Your task to perform on an android device: turn vacation reply on in the gmail app Image 0: 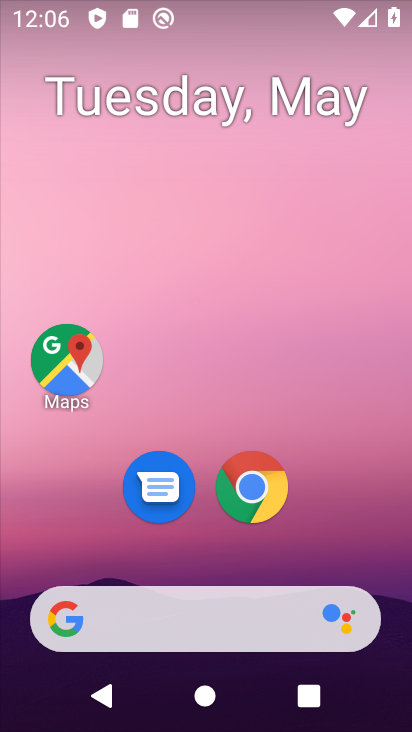
Step 0: drag from (340, 445) to (211, 37)
Your task to perform on an android device: turn vacation reply on in the gmail app Image 1: 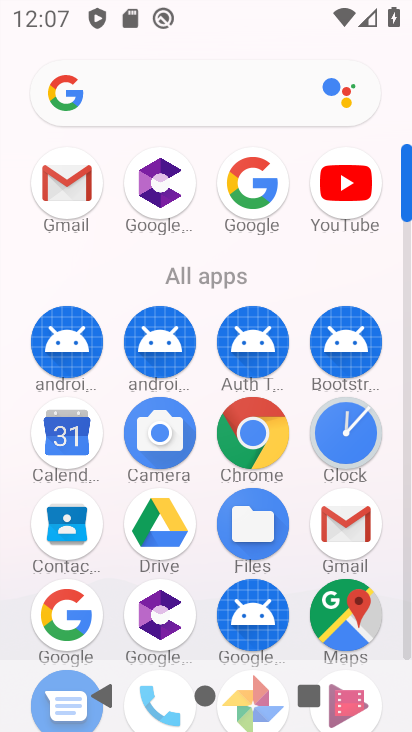
Step 1: click (349, 524)
Your task to perform on an android device: turn vacation reply on in the gmail app Image 2: 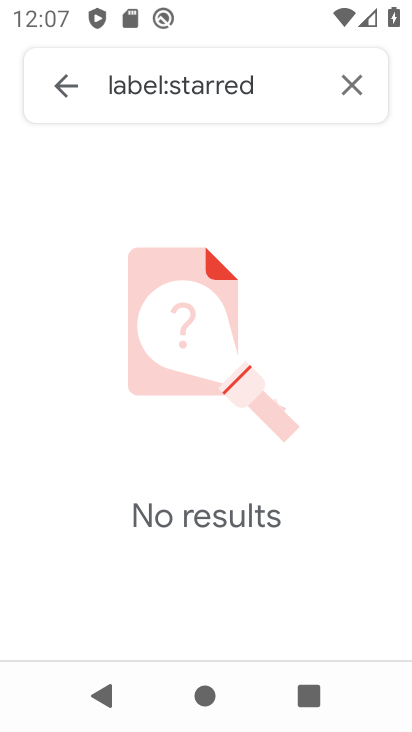
Step 2: click (350, 90)
Your task to perform on an android device: turn vacation reply on in the gmail app Image 3: 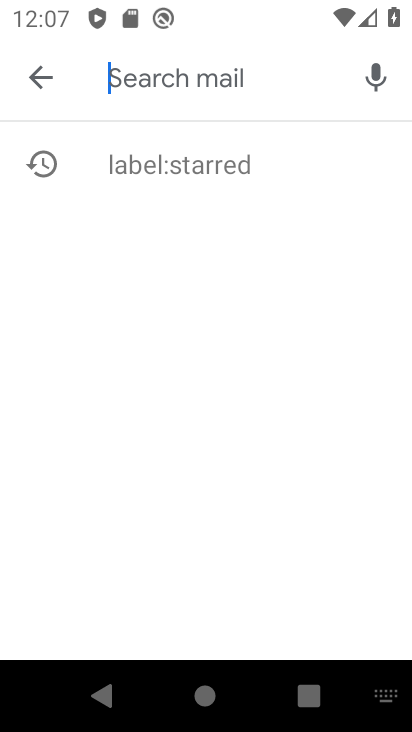
Step 3: click (40, 76)
Your task to perform on an android device: turn vacation reply on in the gmail app Image 4: 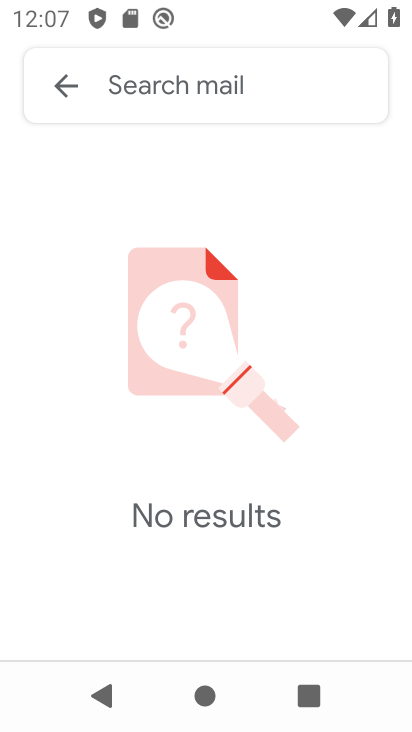
Step 4: click (69, 86)
Your task to perform on an android device: turn vacation reply on in the gmail app Image 5: 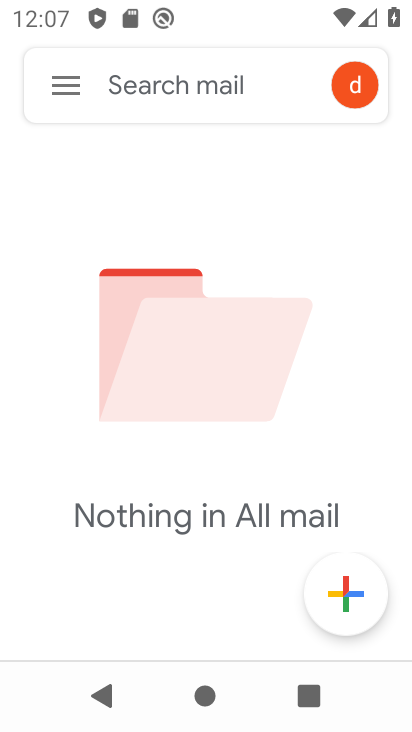
Step 5: click (72, 80)
Your task to perform on an android device: turn vacation reply on in the gmail app Image 6: 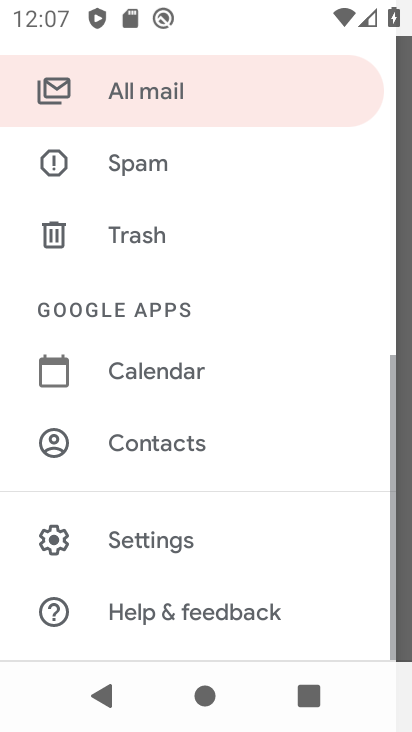
Step 6: drag from (217, 544) to (275, 191)
Your task to perform on an android device: turn vacation reply on in the gmail app Image 7: 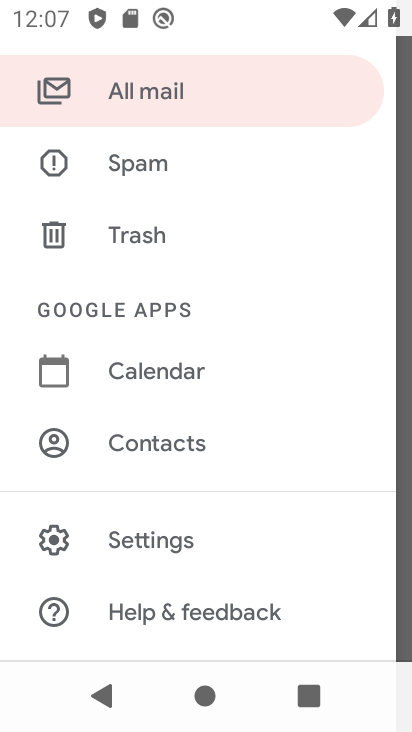
Step 7: click (192, 530)
Your task to perform on an android device: turn vacation reply on in the gmail app Image 8: 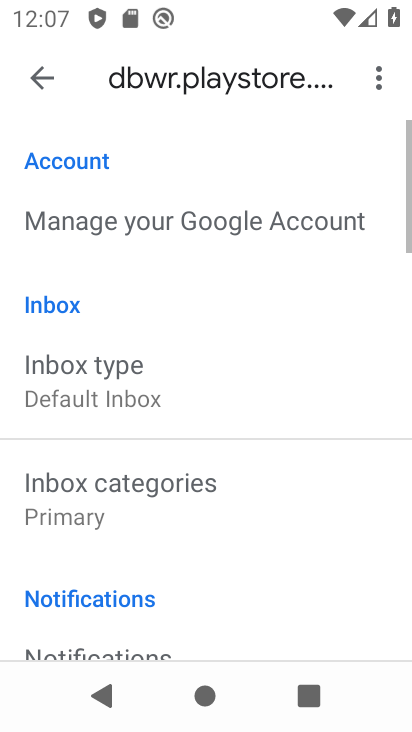
Step 8: drag from (250, 408) to (293, 104)
Your task to perform on an android device: turn vacation reply on in the gmail app Image 9: 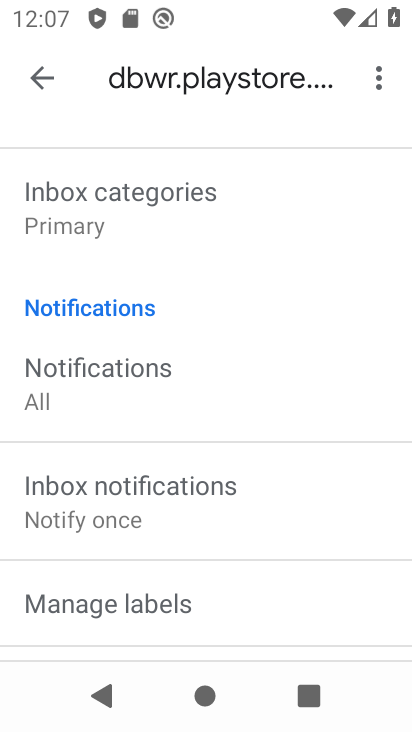
Step 9: drag from (290, 588) to (258, 80)
Your task to perform on an android device: turn vacation reply on in the gmail app Image 10: 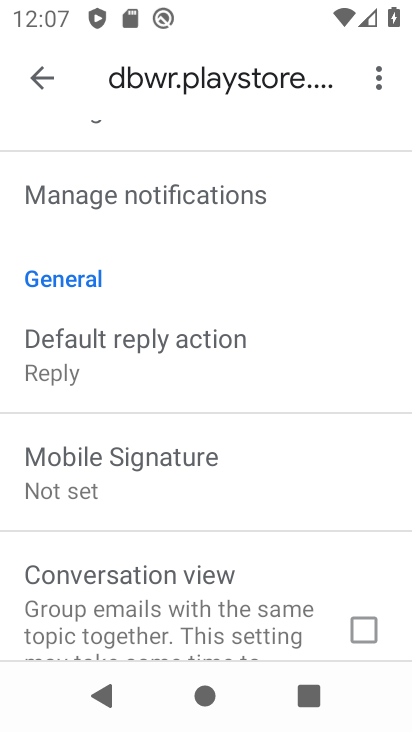
Step 10: drag from (207, 538) to (226, 156)
Your task to perform on an android device: turn vacation reply on in the gmail app Image 11: 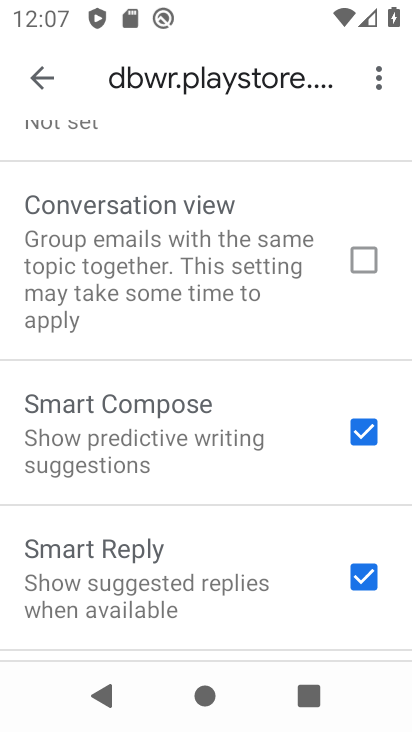
Step 11: drag from (180, 545) to (197, 227)
Your task to perform on an android device: turn vacation reply on in the gmail app Image 12: 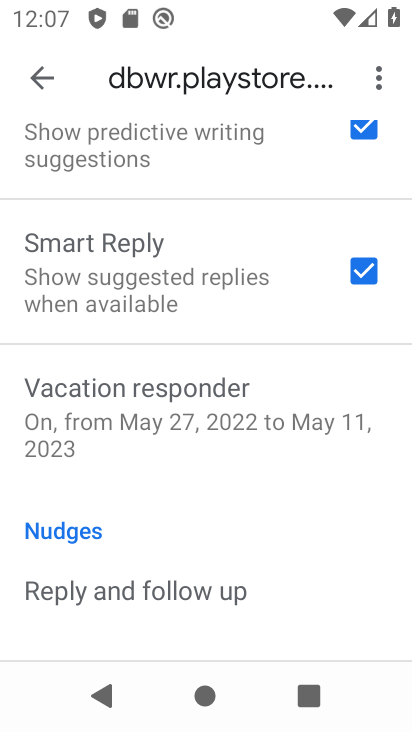
Step 12: click (167, 408)
Your task to perform on an android device: turn vacation reply on in the gmail app Image 13: 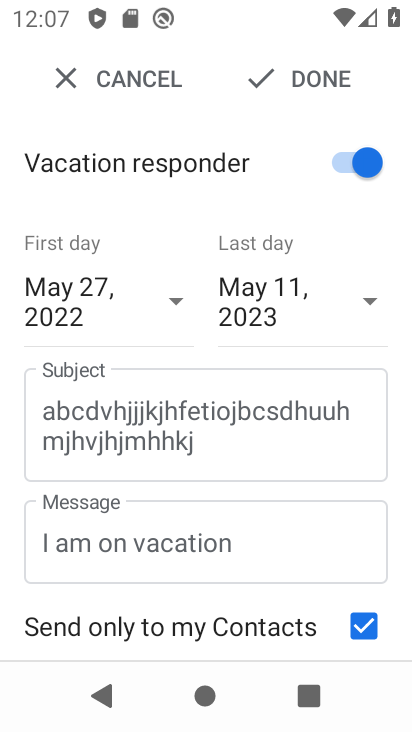
Step 13: click (332, 95)
Your task to perform on an android device: turn vacation reply on in the gmail app Image 14: 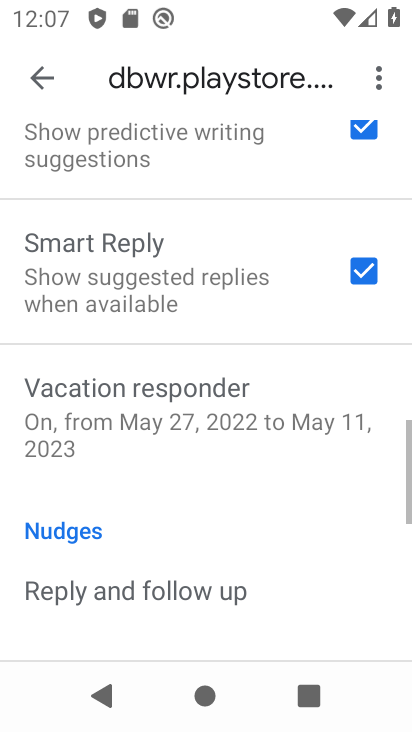
Step 14: task complete